Your task to perform on an android device: open app "PlayWell" (install if not already installed) Image 0: 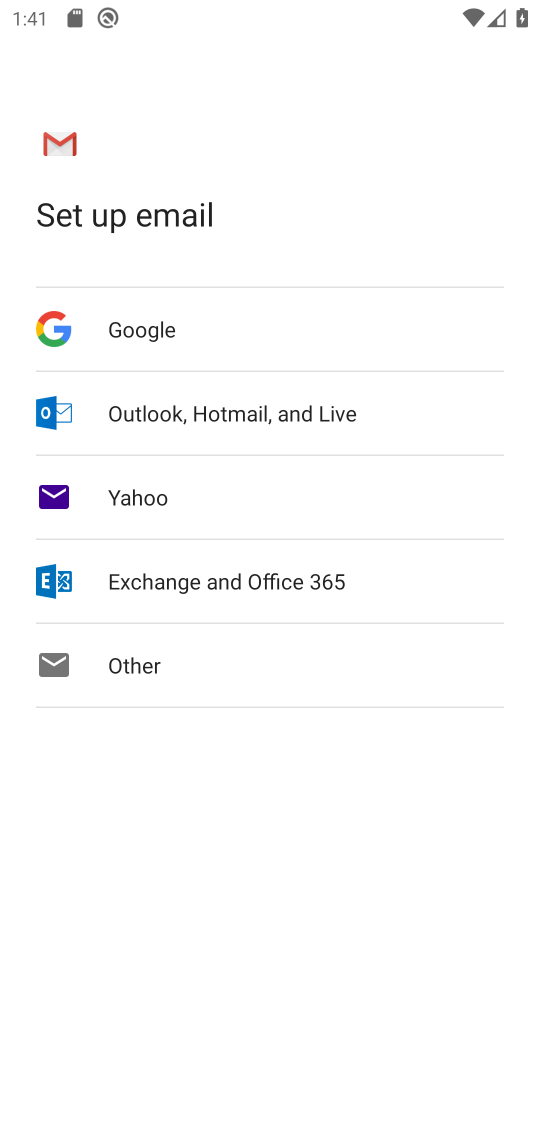
Step 0: task complete